Your task to perform on an android device: turn notification dots on Image 0: 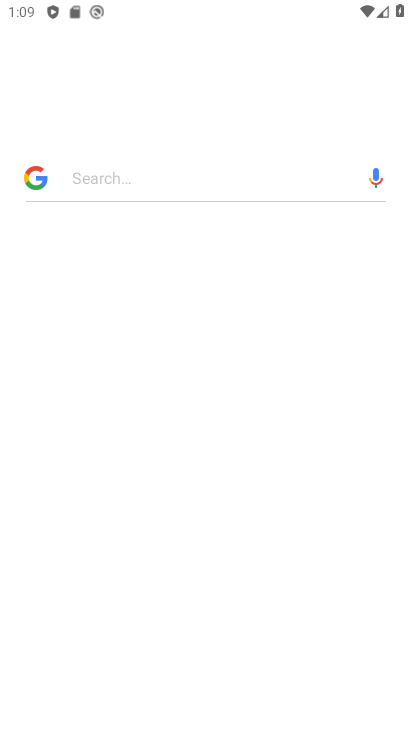
Step 0: drag from (221, 631) to (405, 473)
Your task to perform on an android device: turn notification dots on Image 1: 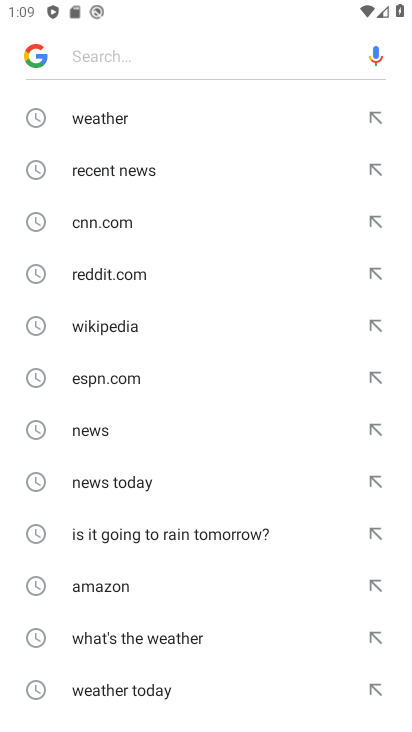
Step 1: press home button
Your task to perform on an android device: turn notification dots on Image 2: 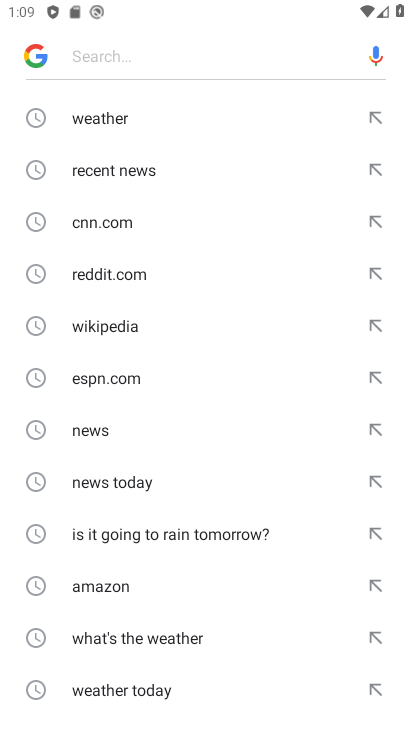
Step 2: click (399, 371)
Your task to perform on an android device: turn notification dots on Image 3: 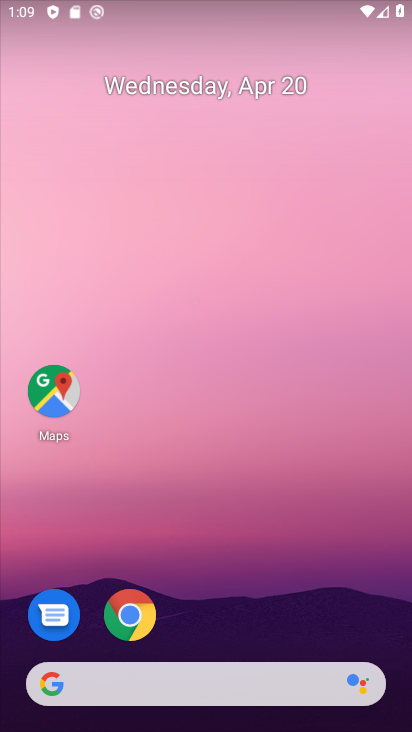
Step 3: drag from (233, 624) to (289, 87)
Your task to perform on an android device: turn notification dots on Image 4: 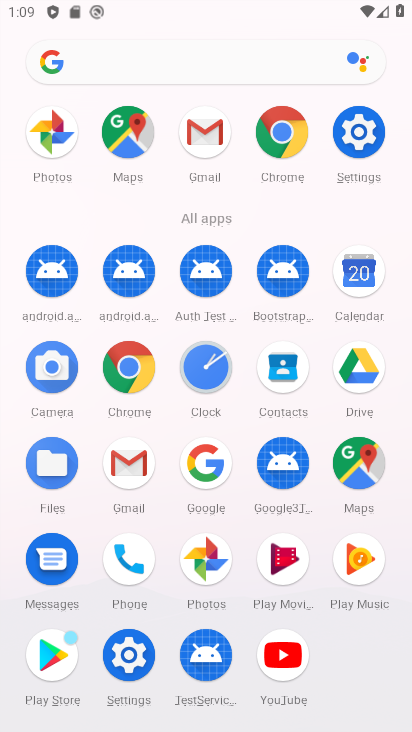
Step 4: click (359, 138)
Your task to perform on an android device: turn notification dots on Image 5: 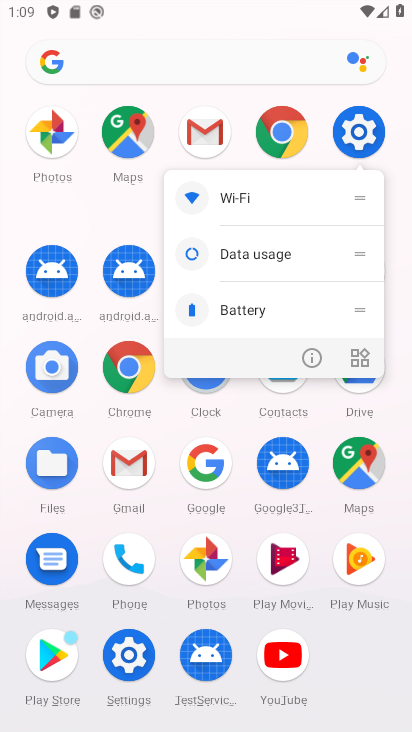
Step 5: click (364, 144)
Your task to perform on an android device: turn notification dots on Image 6: 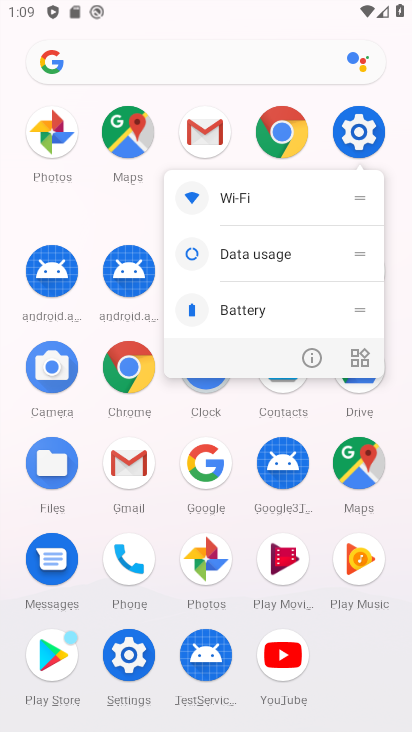
Step 6: click (365, 144)
Your task to perform on an android device: turn notification dots on Image 7: 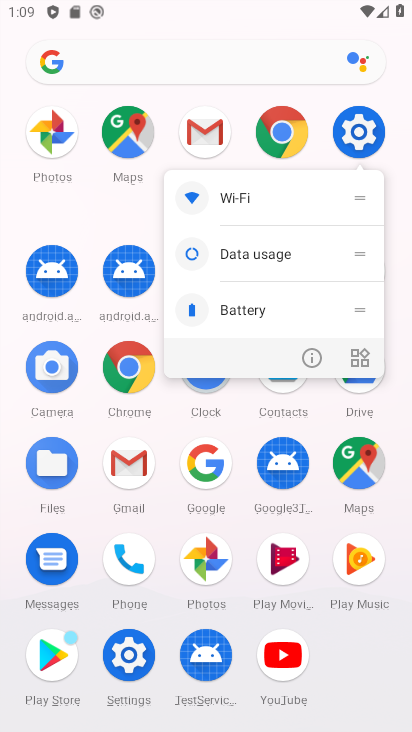
Step 7: click (366, 144)
Your task to perform on an android device: turn notification dots on Image 8: 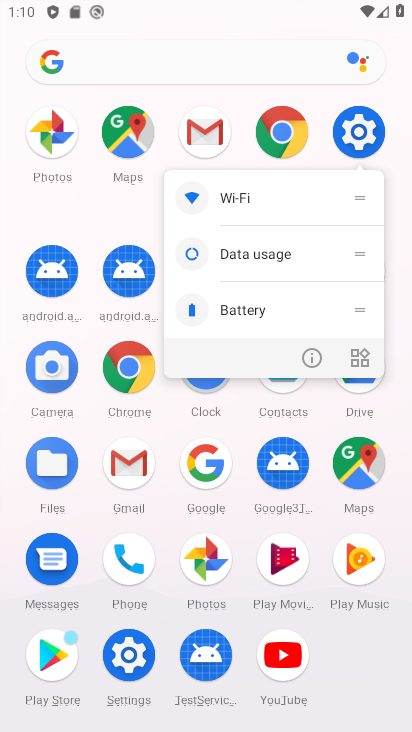
Step 8: click (376, 148)
Your task to perform on an android device: turn notification dots on Image 9: 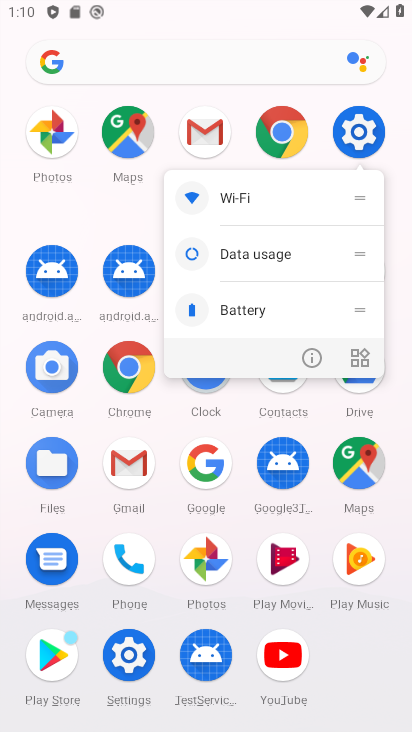
Step 9: click (370, 151)
Your task to perform on an android device: turn notification dots on Image 10: 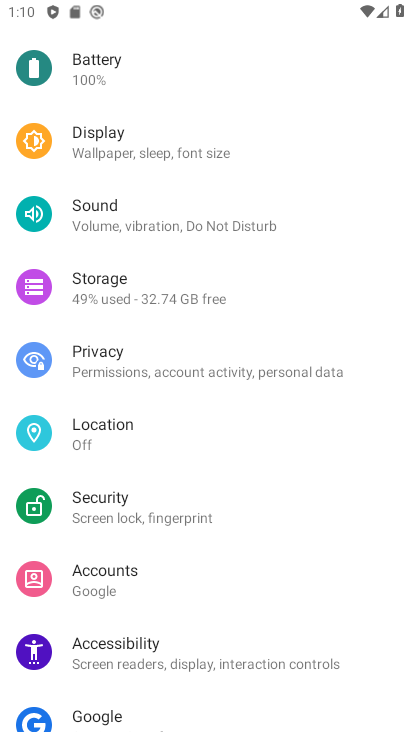
Step 10: drag from (87, 174) to (119, 263)
Your task to perform on an android device: turn notification dots on Image 11: 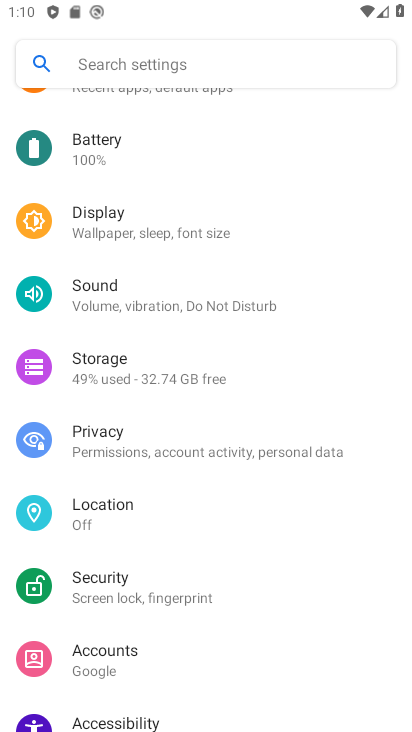
Step 11: drag from (108, 206) to (122, 265)
Your task to perform on an android device: turn notification dots on Image 12: 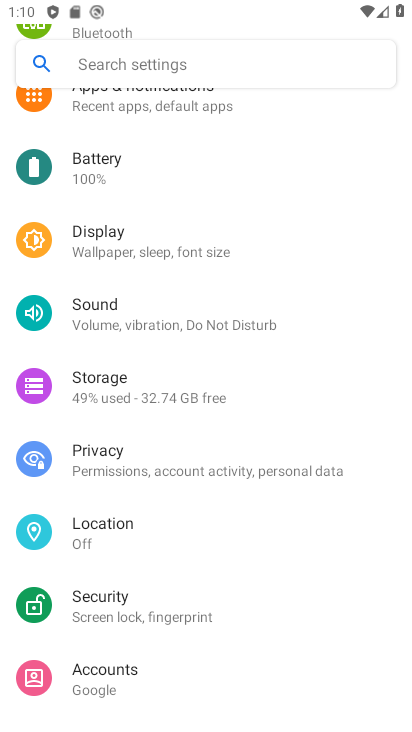
Step 12: drag from (155, 148) to (189, 227)
Your task to perform on an android device: turn notification dots on Image 13: 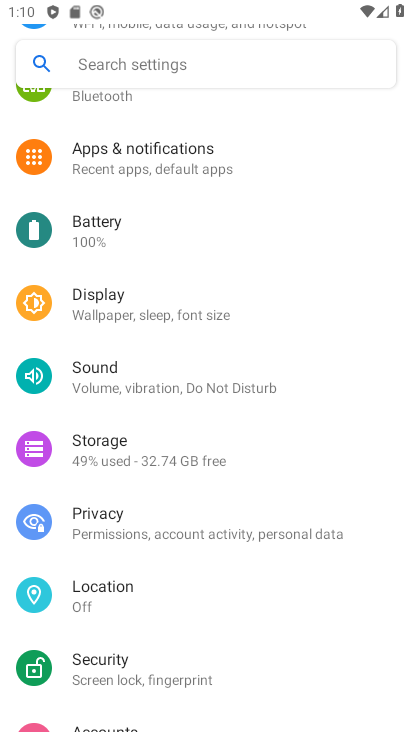
Step 13: click (188, 159)
Your task to perform on an android device: turn notification dots on Image 14: 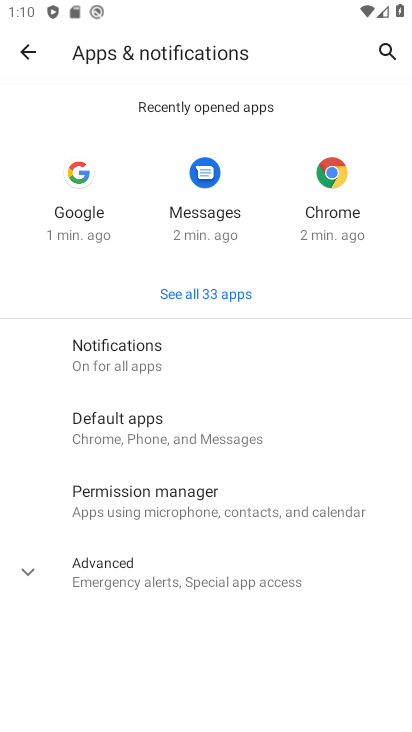
Step 14: click (201, 356)
Your task to perform on an android device: turn notification dots on Image 15: 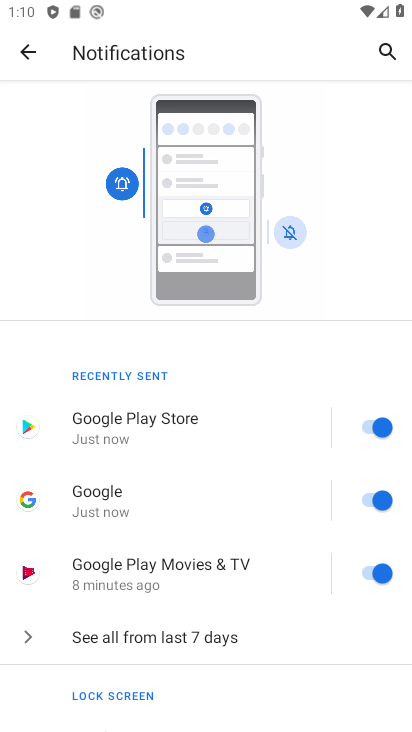
Step 15: drag from (224, 627) to (252, 451)
Your task to perform on an android device: turn notification dots on Image 16: 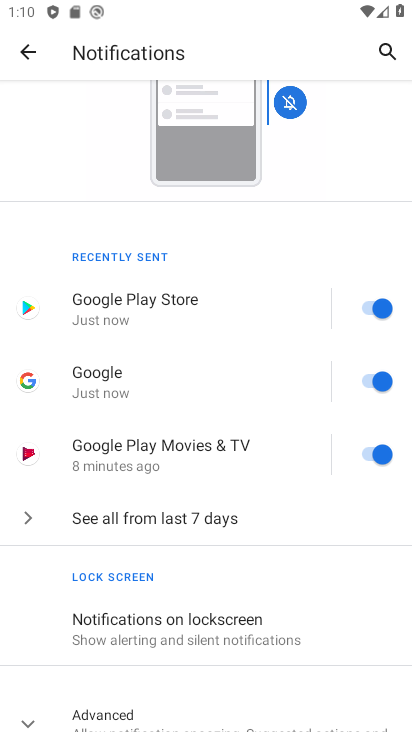
Step 16: drag from (220, 639) to (229, 415)
Your task to perform on an android device: turn notification dots on Image 17: 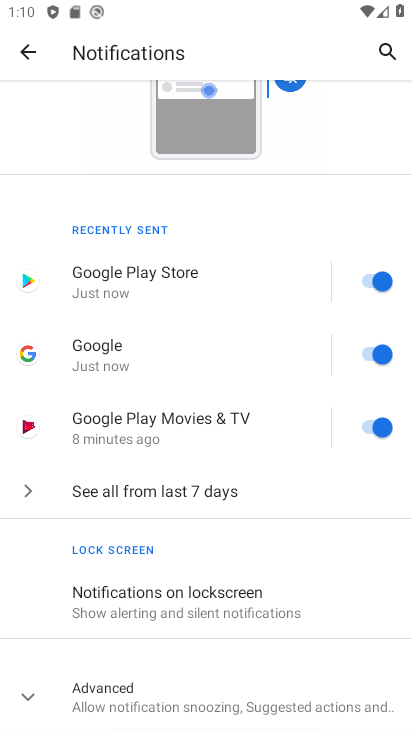
Step 17: click (169, 689)
Your task to perform on an android device: turn notification dots on Image 18: 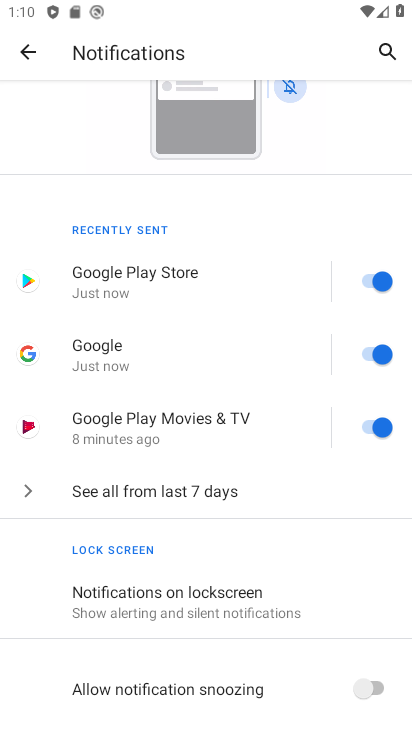
Step 18: task complete